Your task to perform on an android device: turn off airplane mode Image 0: 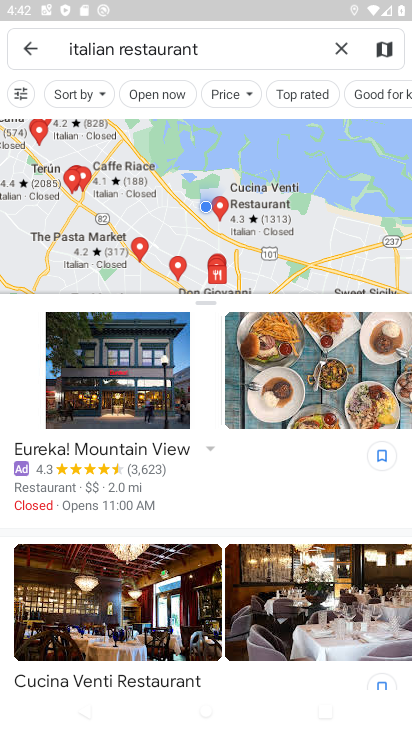
Step 0: press home button
Your task to perform on an android device: turn off airplane mode Image 1: 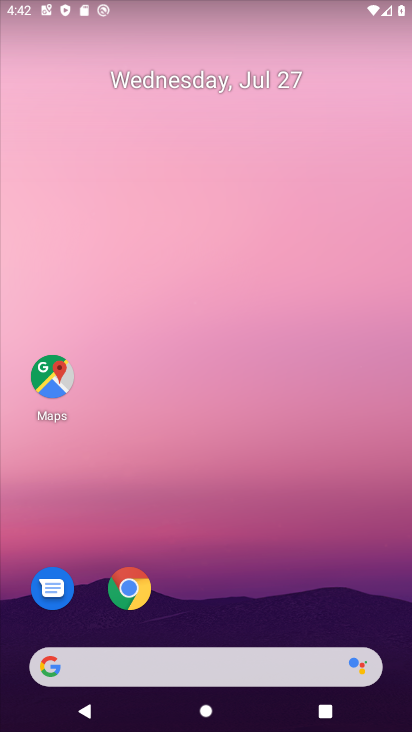
Step 1: drag from (235, 718) to (250, 100)
Your task to perform on an android device: turn off airplane mode Image 2: 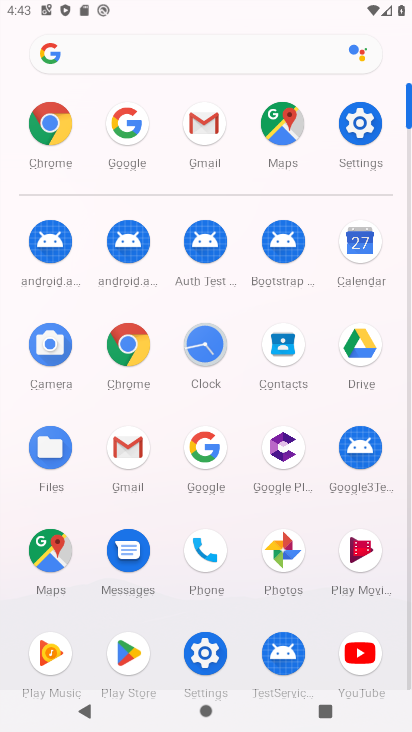
Step 2: click (361, 135)
Your task to perform on an android device: turn off airplane mode Image 3: 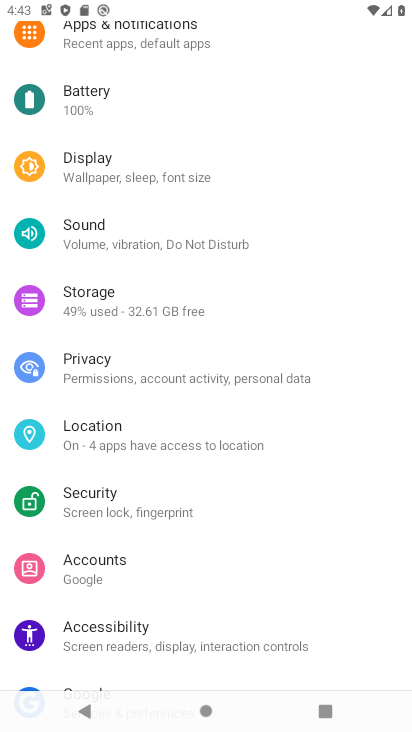
Step 3: drag from (151, 119) to (163, 458)
Your task to perform on an android device: turn off airplane mode Image 4: 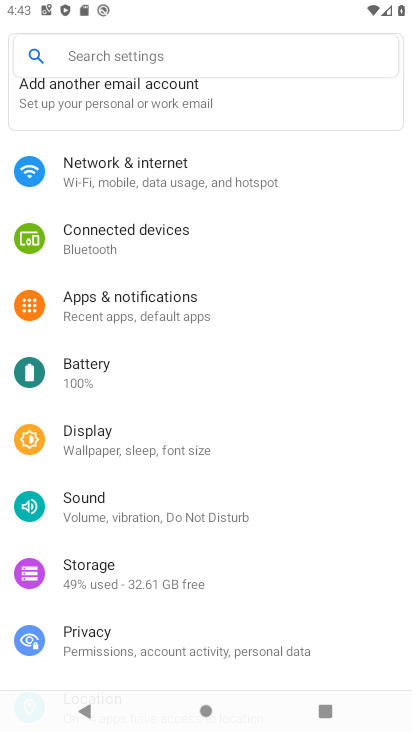
Step 4: click (137, 168)
Your task to perform on an android device: turn off airplane mode Image 5: 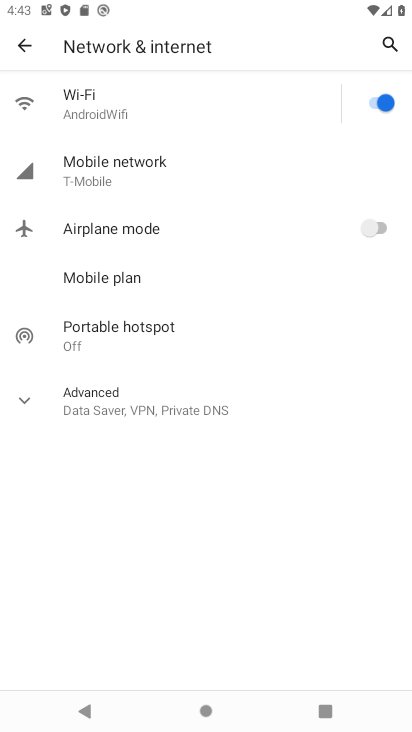
Step 5: task complete